Your task to perform on an android device: turn off picture-in-picture Image 0: 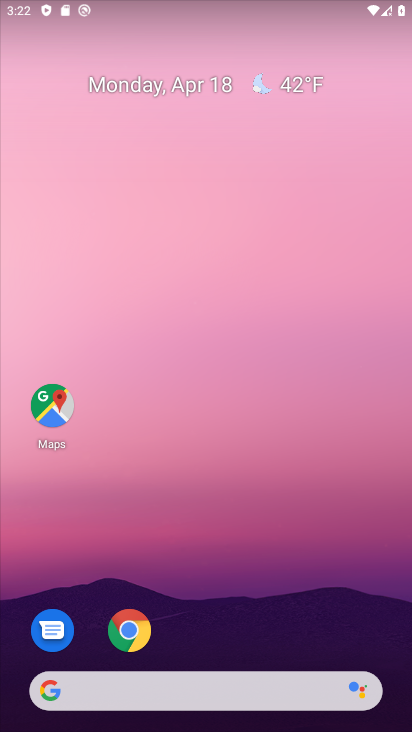
Step 0: drag from (234, 570) to (190, 169)
Your task to perform on an android device: turn off picture-in-picture Image 1: 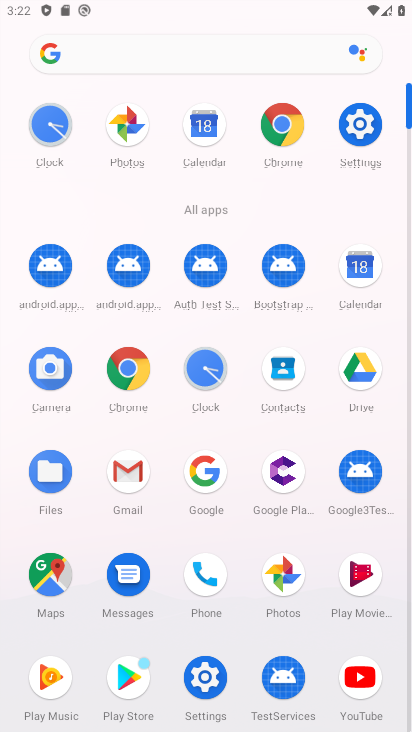
Step 1: click (365, 123)
Your task to perform on an android device: turn off picture-in-picture Image 2: 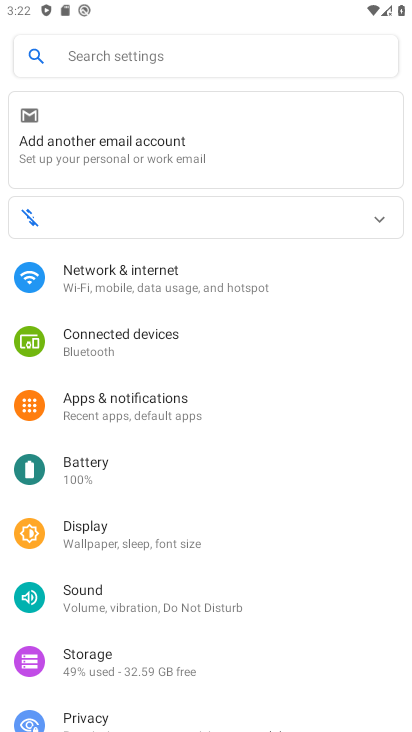
Step 2: click (135, 405)
Your task to perform on an android device: turn off picture-in-picture Image 3: 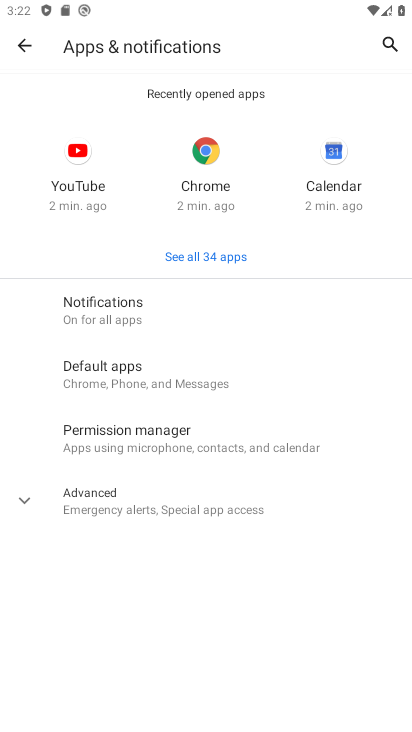
Step 3: click (170, 500)
Your task to perform on an android device: turn off picture-in-picture Image 4: 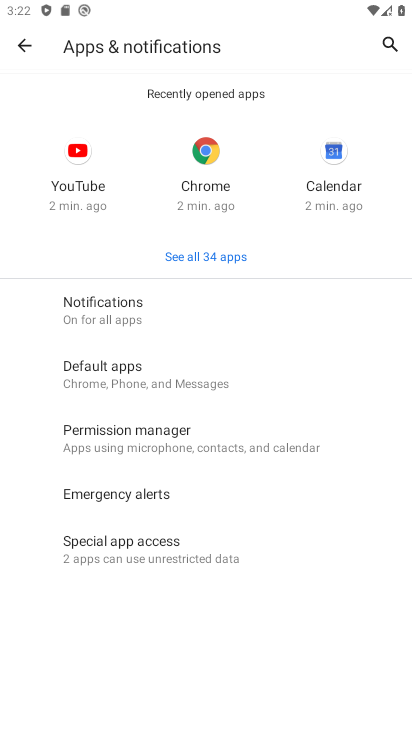
Step 4: click (133, 551)
Your task to perform on an android device: turn off picture-in-picture Image 5: 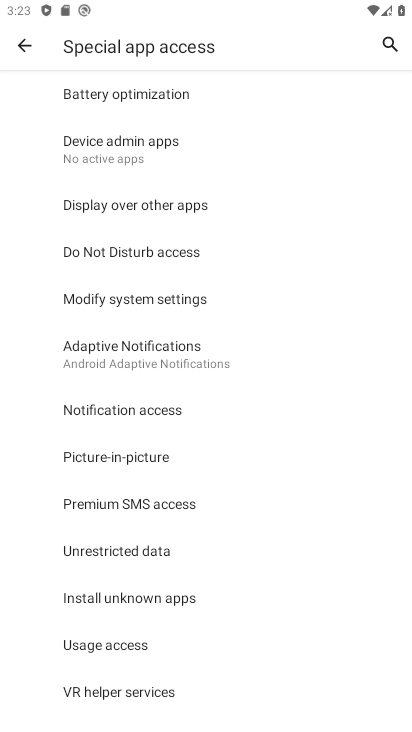
Step 5: click (130, 457)
Your task to perform on an android device: turn off picture-in-picture Image 6: 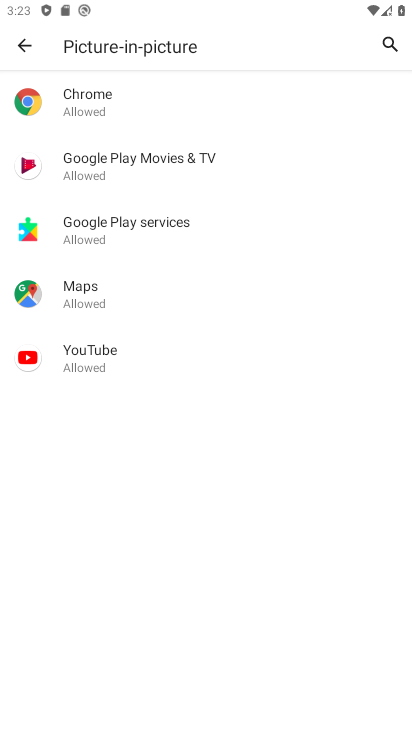
Step 6: click (131, 350)
Your task to perform on an android device: turn off picture-in-picture Image 7: 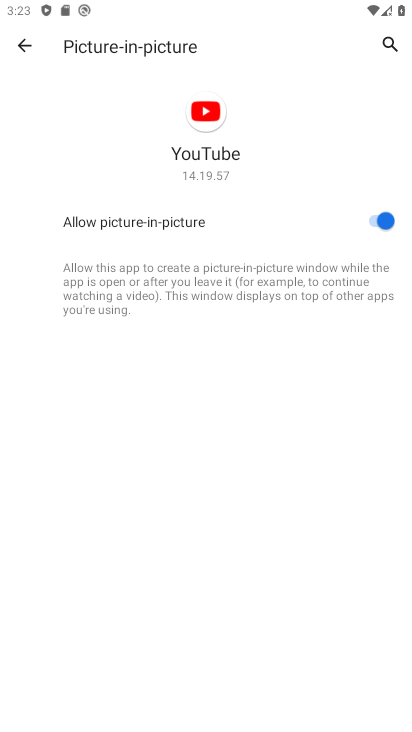
Step 7: click (379, 217)
Your task to perform on an android device: turn off picture-in-picture Image 8: 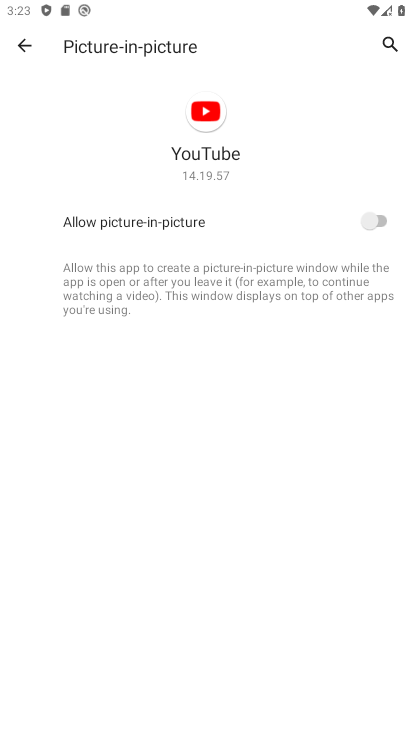
Step 8: task complete